Your task to perform on an android device: turn off wifi Image 0: 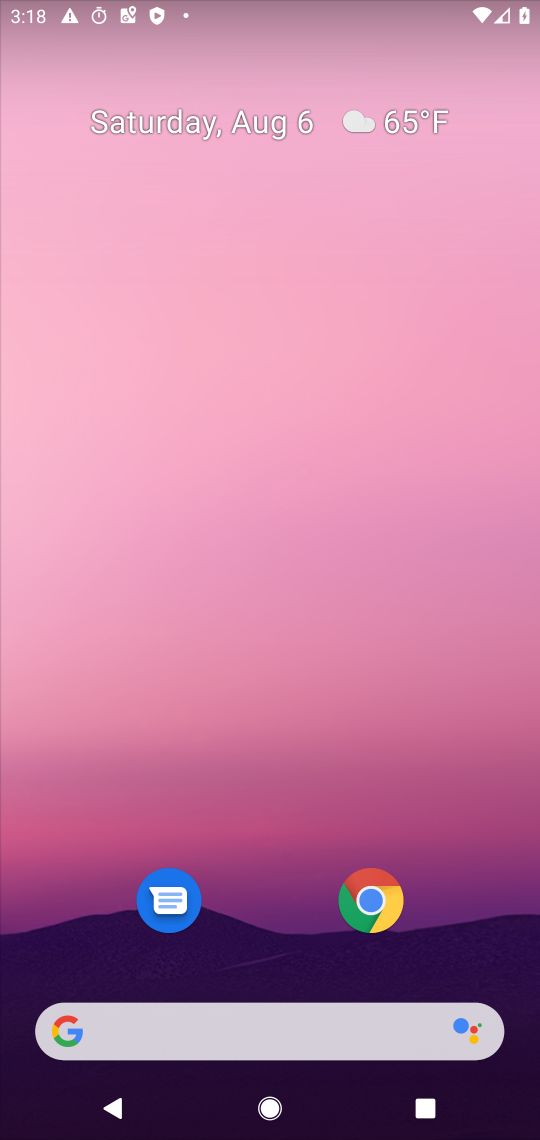
Step 0: press home button
Your task to perform on an android device: turn off wifi Image 1: 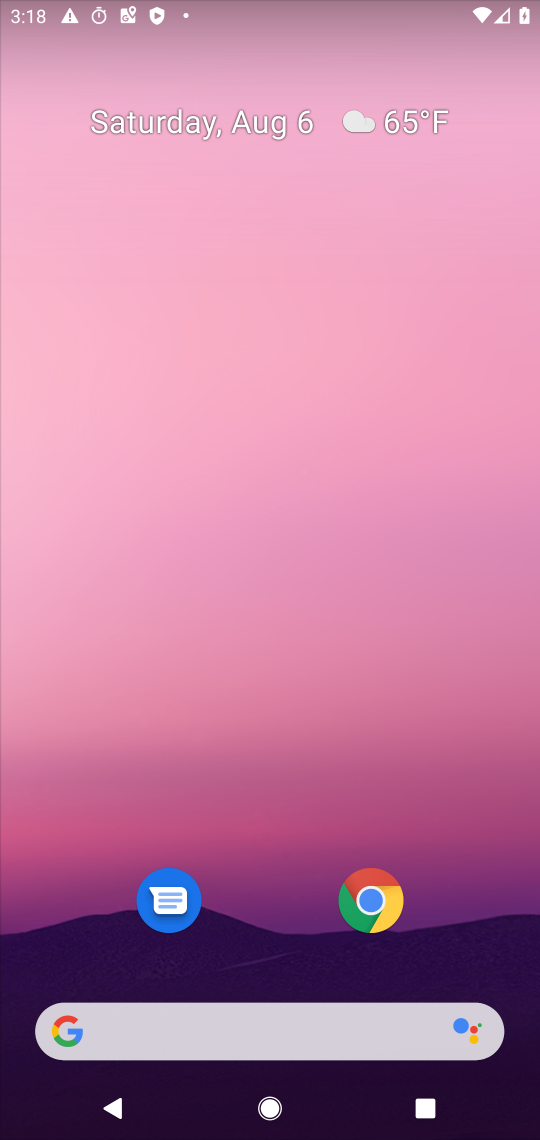
Step 1: drag from (283, 900) to (282, 155)
Your task to perform on an android device: turn off wifi Image 2: 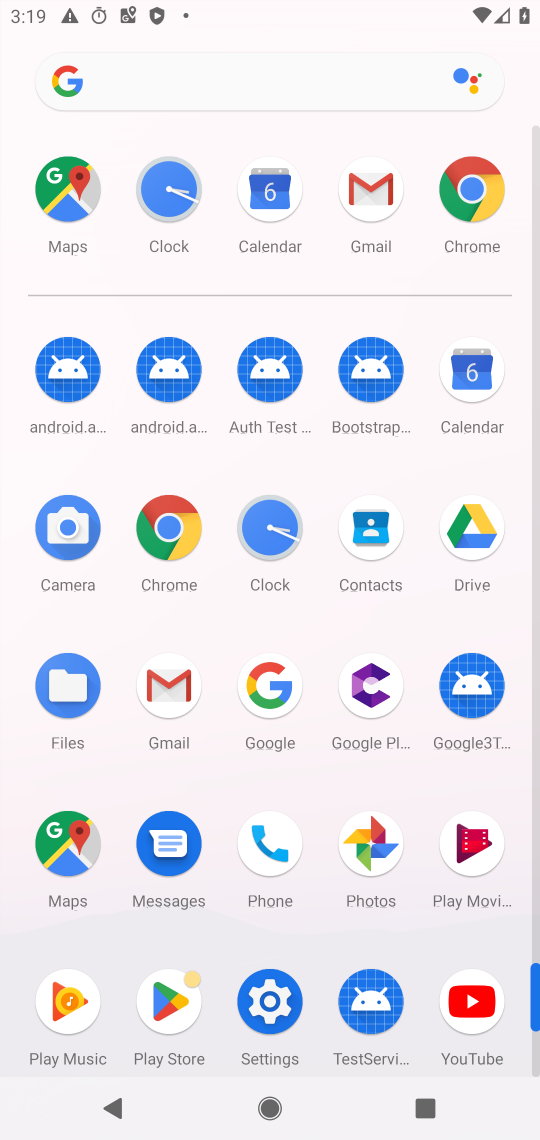
Step 2: click (259, 1006)
Your task to perform on an android device: turn off wifi Image 3: 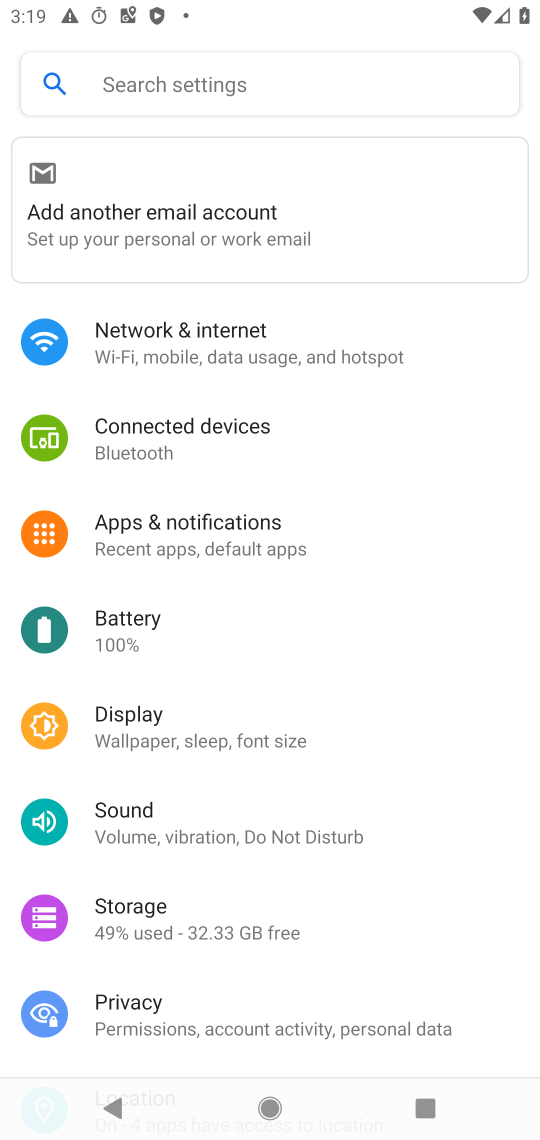
Step 3: click (142, 349)
Your task to perform on an android device: turn off wifi Image 4: 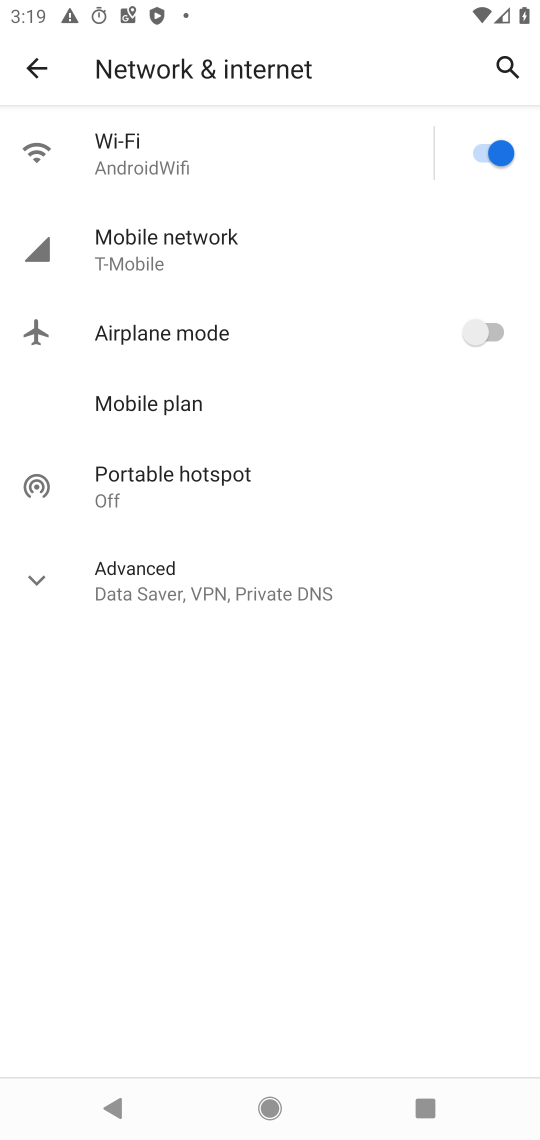
Step 4: click (505, 151)
Your task to perform on an android device: turn off wifi Image 5: 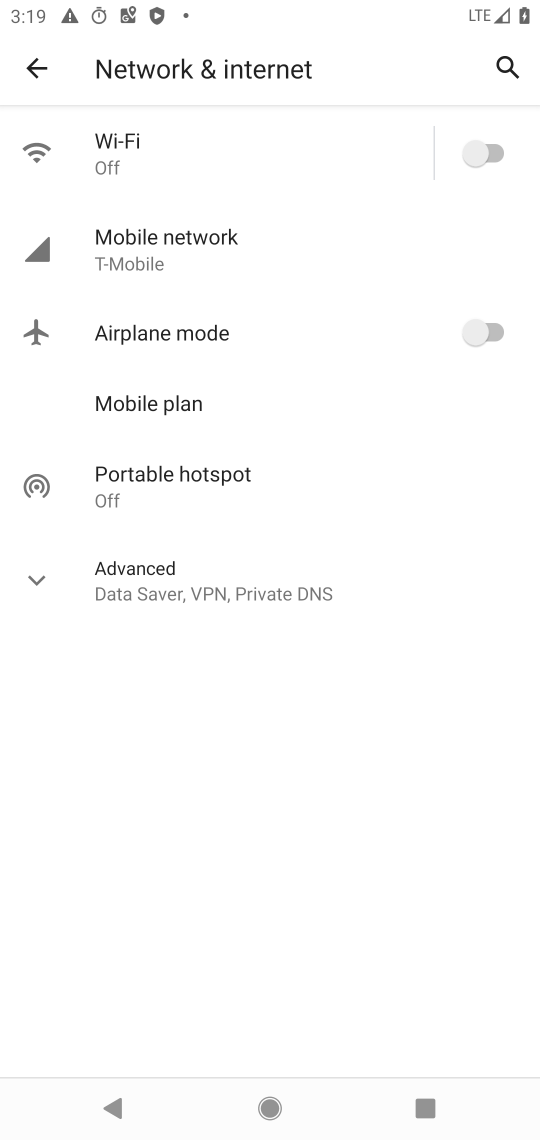
Step 5: task complete